Your task to perform on an android device: turn off wifi Image 0: 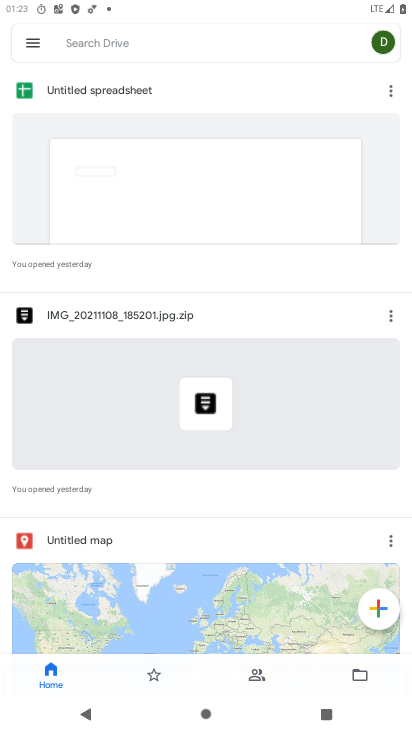
Step 0: press home button
Your task to perform on an android device: turn off wifi Image 1: 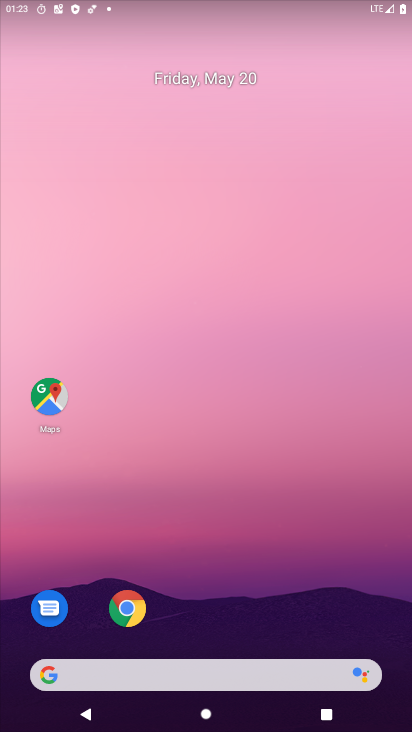
Step 1: drag from (330, 617) to (278, 105)
Your task to perform on an android device: turn off wifi Image 2: 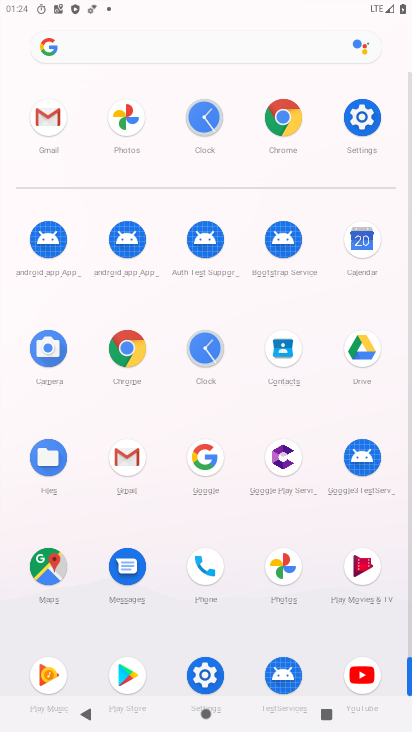
Step 2: click (214, 684)
Your task to perform on an android device: turn off wifi Image 3: 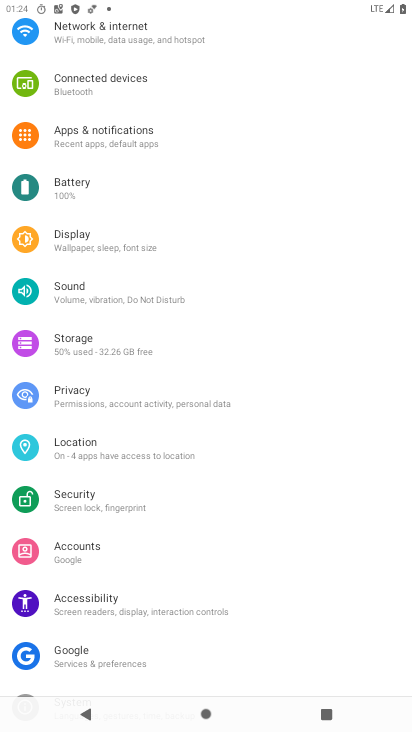
Step 3: click (169, 35)
Your task to perform on an android device: turn off wifi Image 4: 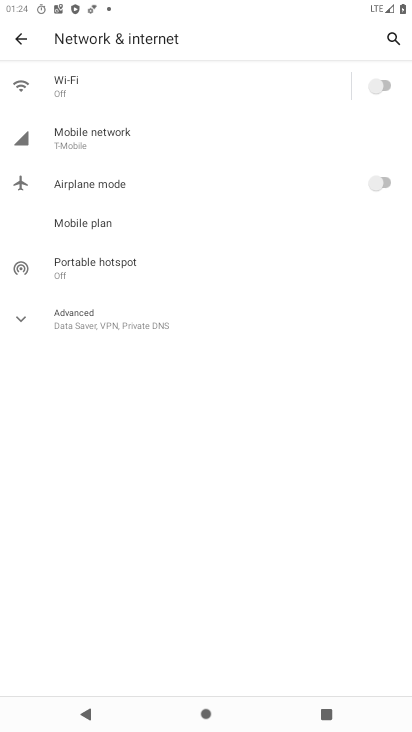
Step 4: task complete